Your task to perform on an android device: turn on javascript in the chrome app Image 0: 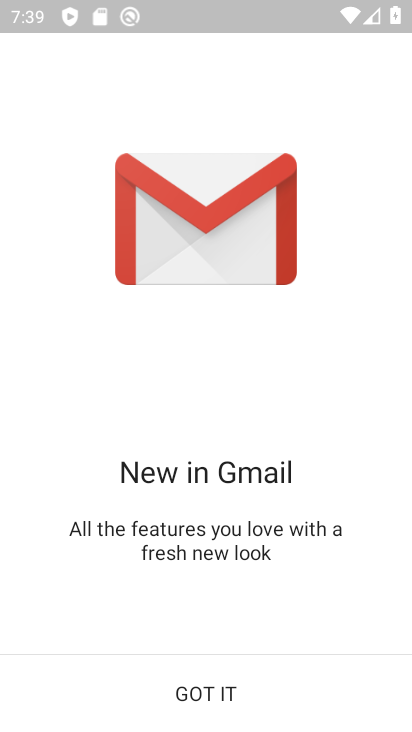
Step 0: press home button
Your task to perform on an android device: turn on javascript in the chrome app Image 1: 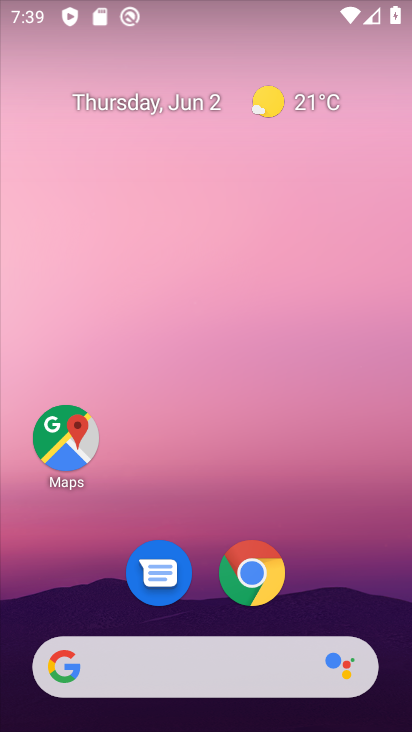
Step 1: click (256, 564)
Your task to perform on an android device: turn on javascript in the chrome app Image 2: 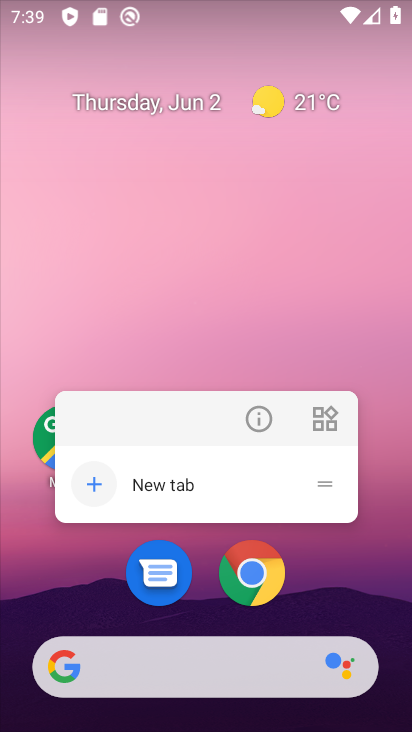
Step 2: click (256, 569)
Your task to perform on an android device: turn on javascript in the chrome app Image 3: 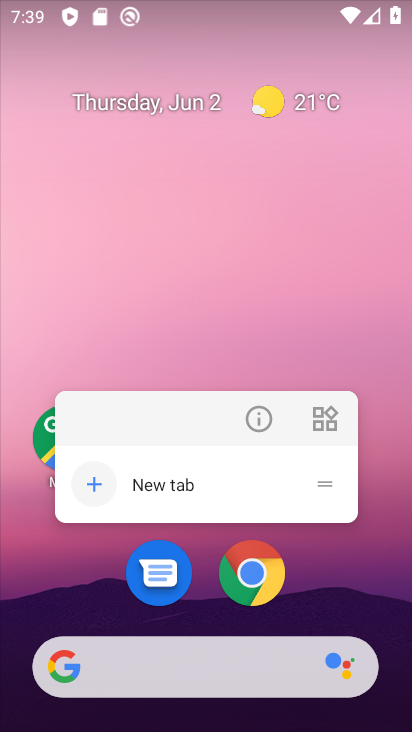
Step 3: click (256, 569)
Your task to perform on an android device: turn on javascript in the chrome app Image 4: 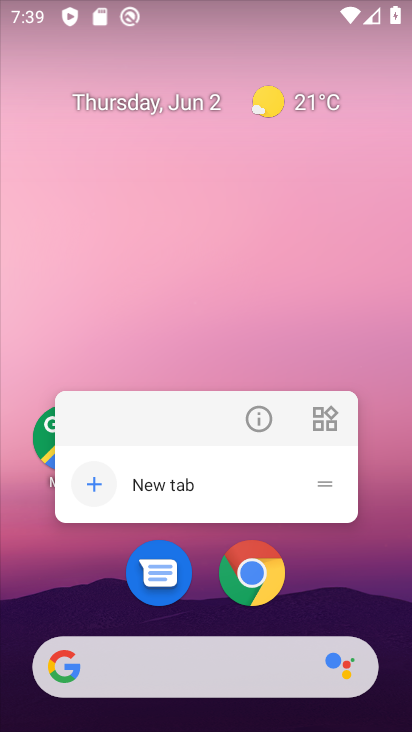
Step 4: click (256, 569)
Your task to perform on an android device: turn on javascript in the chrome app Image 5: 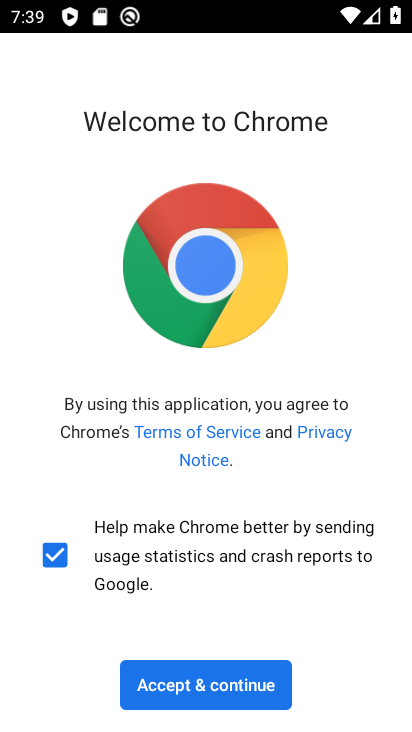
Step 5: click (181, 668)
Your task to perform on an android device: turn on javascript in the chrome app Image 6: 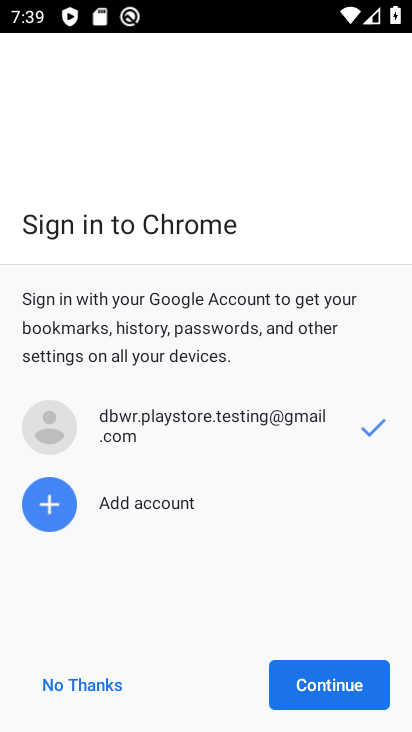
Step 6: click (315, 675)
Your task to perform on an android device: turn on javascript in the chrome app Image 7: 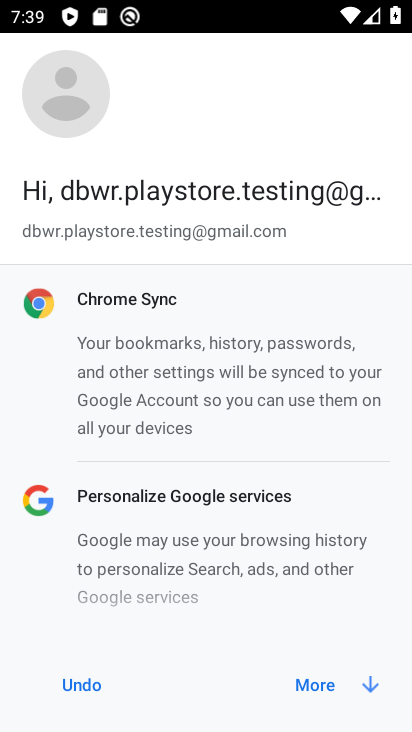
Step 7: click (315, 675)
Your task to perform on an android device: turn on javascript in the chrome app Image 8: 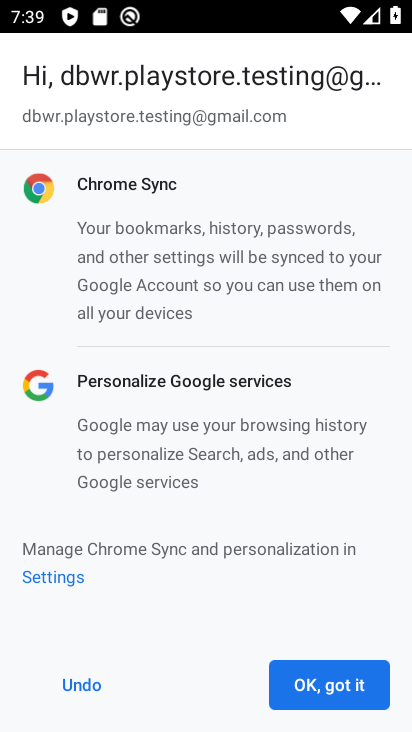
Step 8: click (315, 675)
Your task to perform on an android device: turn on javascript in the chrome app Image 9: 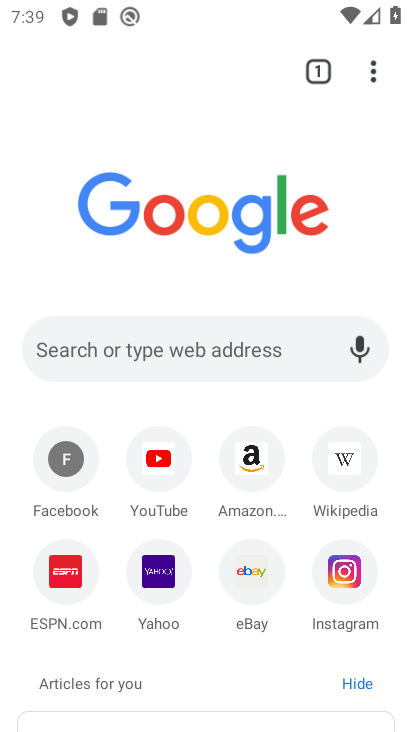
Step 9: click (367, 61)
Your task to perform on an android device: turn on javascript in the chrome app Image 10: 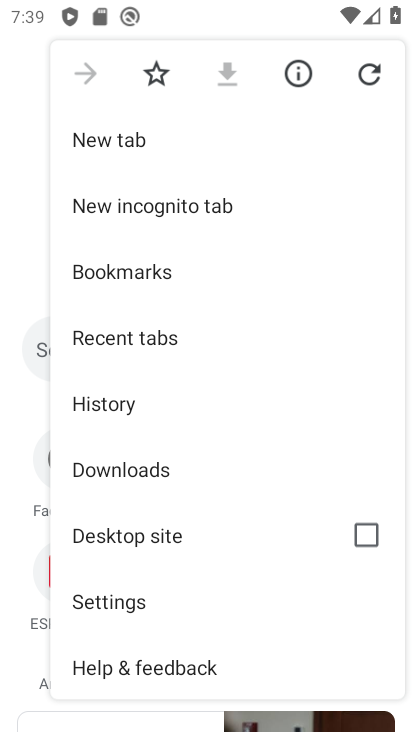
Step 10: click (151, 596)
Your task to perform on an android device: turn on javascript in the chrome app Image 11: 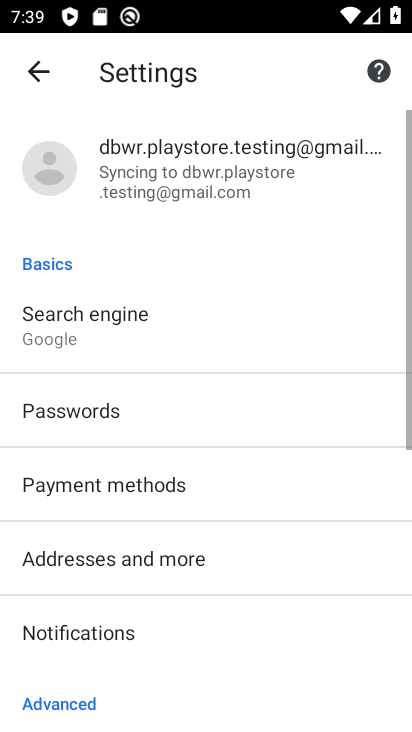
Step 11: drag from (156, 586) to (149, 37)
Your task to perform on an android device: turn on javascript in the chrome app Image 12: 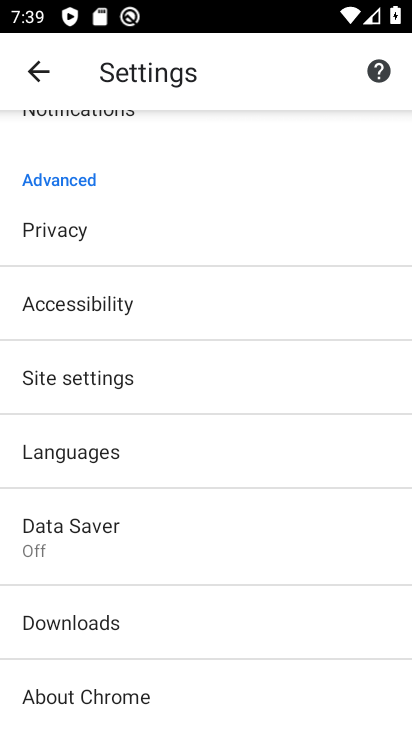
Step 12: click (83, 369)
Your task to perform on an android device: turn on javascript in the chrome app Image 13: 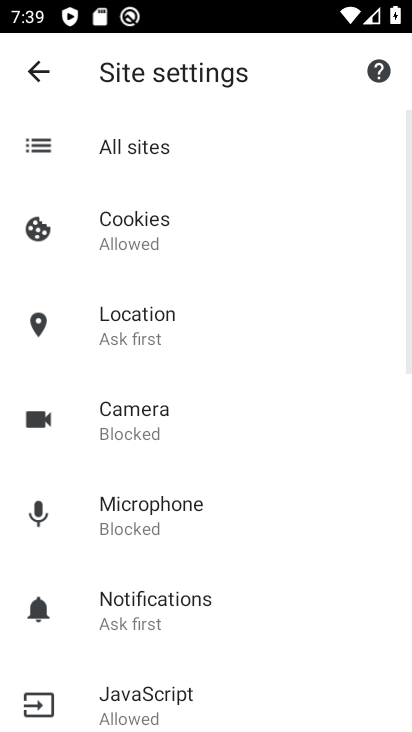
Step 13: drag from (147, 658) to (116, 289)
Your task to perform on an android device: turn on javascript in the chrome app Image 14: 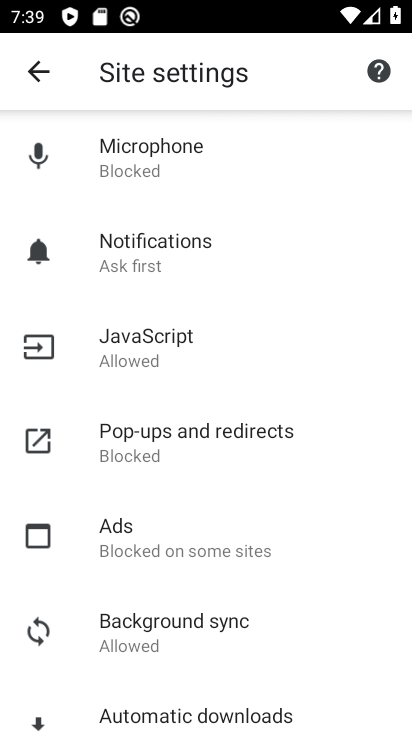
Step 14: click (137, 345)
Your task to perform on an android device: turn on javascript in the chrome app Image 15: 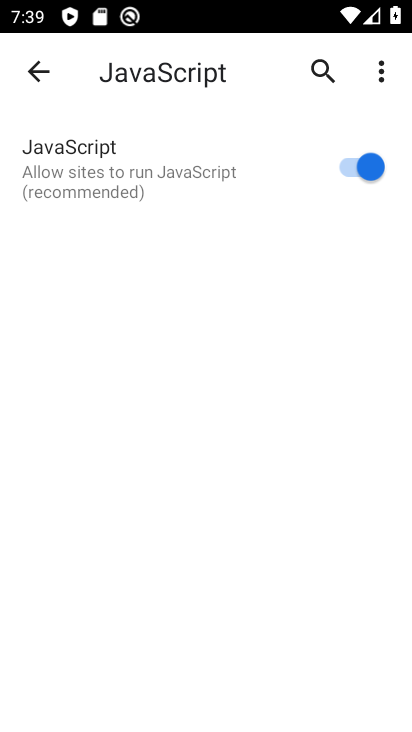
Step 15: task complete